Your task to perform on an android device: Go to eBay Image 0: 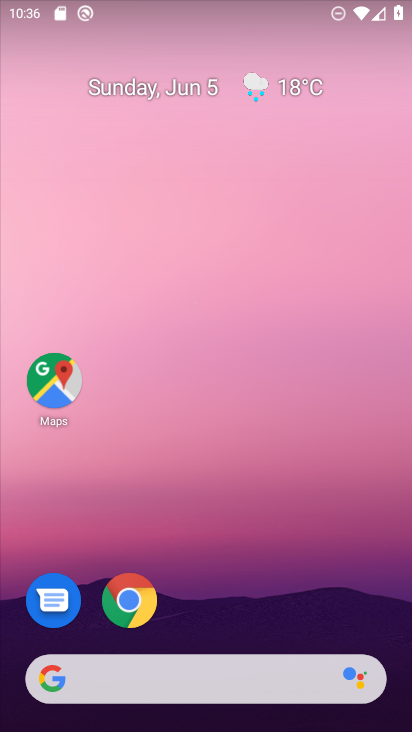
Step 0: click (126, 597)
Your task to perform on an android device: Go to eBay Image 1: 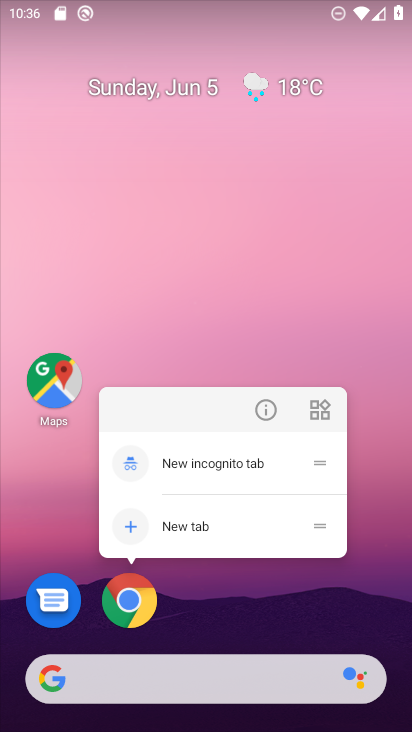
Step 1: click (130, 602)
Your task to perform on an android device: Go to eBay Image 2: 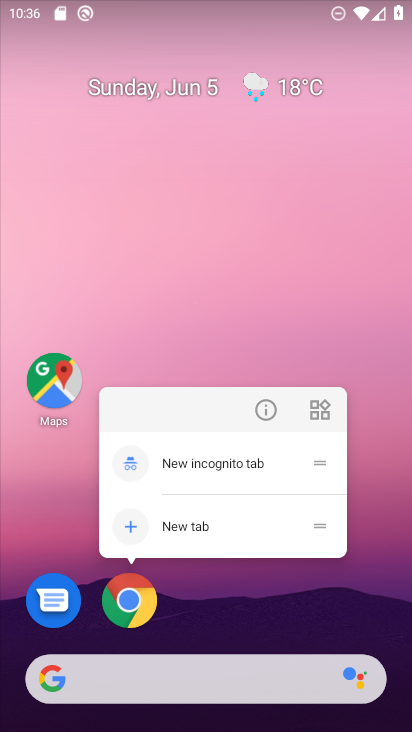
Step 2: click (130, 603)
Your task to perform on an android device: Go to eBay Image 3: 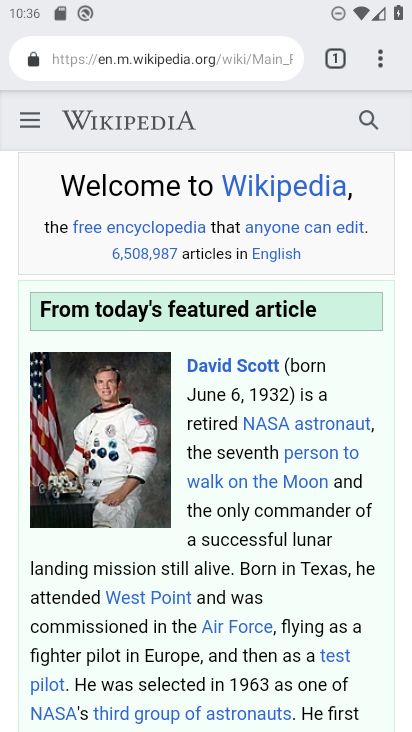
Step 3: click (338, 50)
Your task to perform on an android device: Go to eBay Image 4: 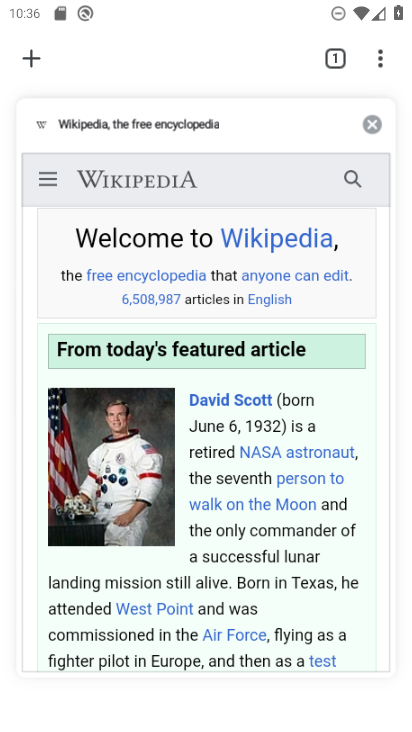
Step 4: click (21, 48)
Your task to perform on an android device: Go to eBay Image 5: 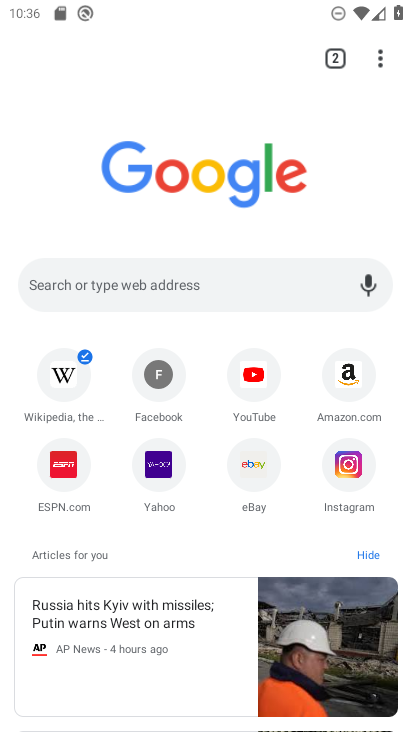
Step 5: click (250, 469)
Your task to perform on an android device: Go to eBay Image 6: 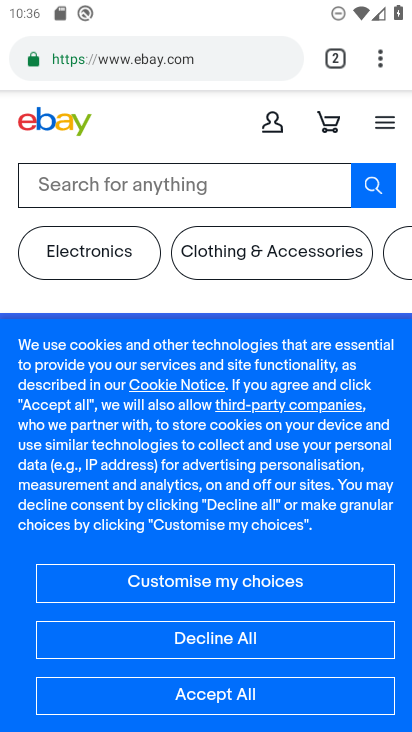
Step 6: task complete